Your task to perform on an android device: Go to Google Image 0: 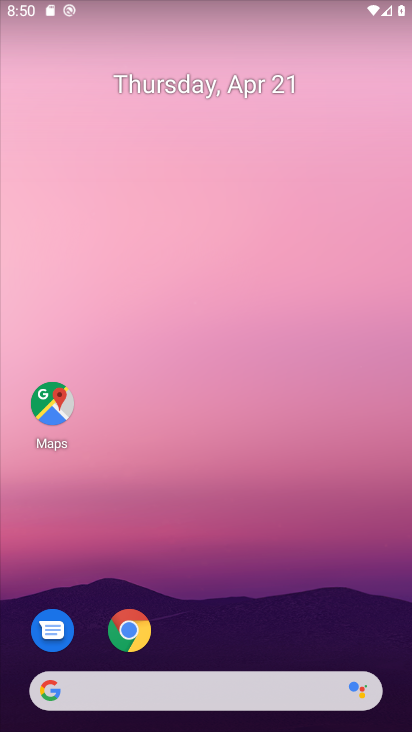
Step 0: click (351, 226)
Your task to perform on an android device: Go to Google Image 1: 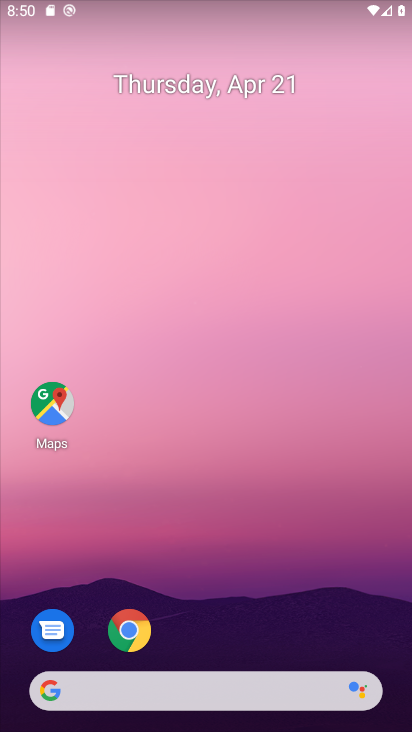
Step 1: click (182, 687)
Your task to perform on an android device: Go to Google Image 2: 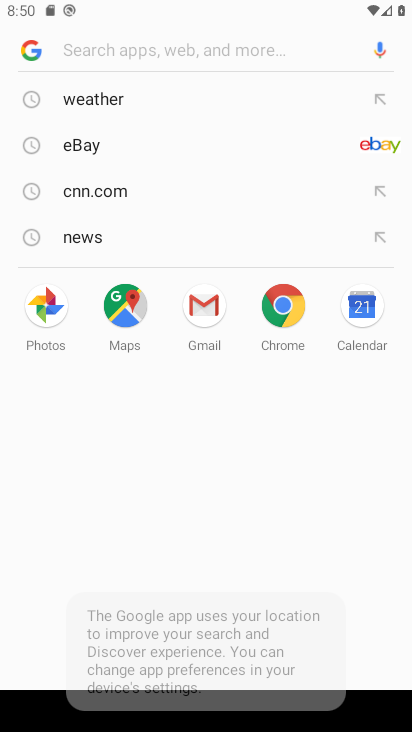
Step 2: click (35, 39)
Your task to perform on an android device: Go to Google Image 3: 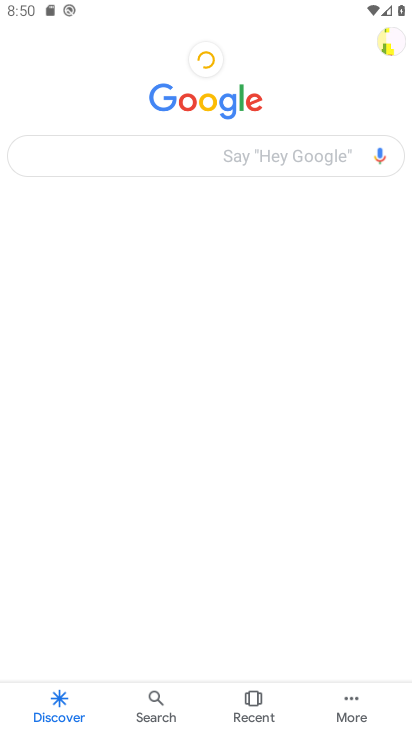
Step 3: task complete